Your task to perform on an android device: turn on priority inbox in the gmail app Image 0: 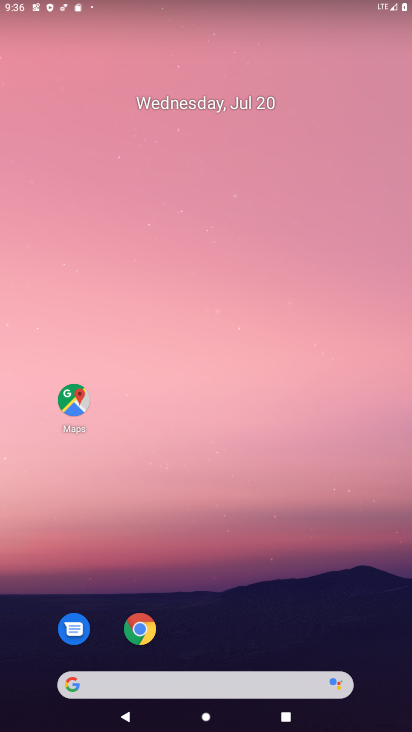
Step 0: press home button
Your task to perform on an android device: turn on priority inbox in the gmail app Image 1: 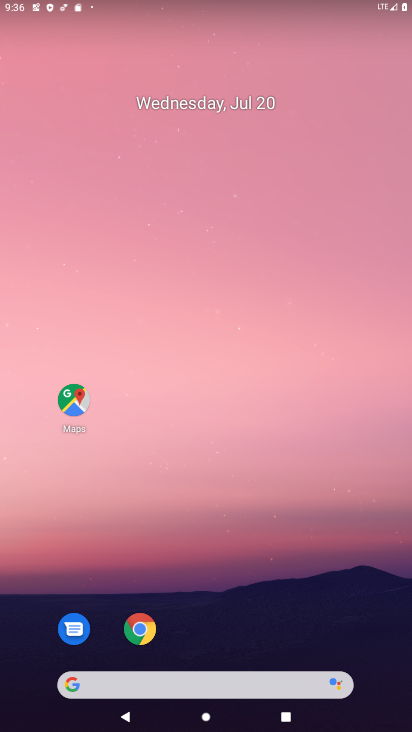
Step 1: drag from (348, 641) to (338, 494)
Your task to perform on an android device: turn on priority inbox in the gmail app Image 2: 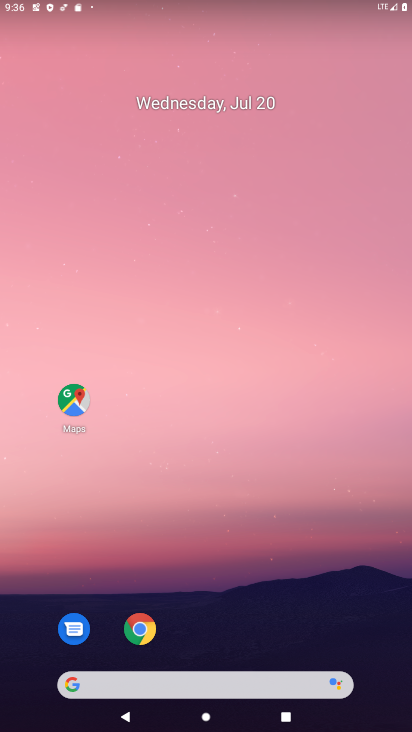
Step 2: drag from (310, 638) to (325, 81)
Your task to perform on an android device: turn on priority inbox in the gmail app Image 3: 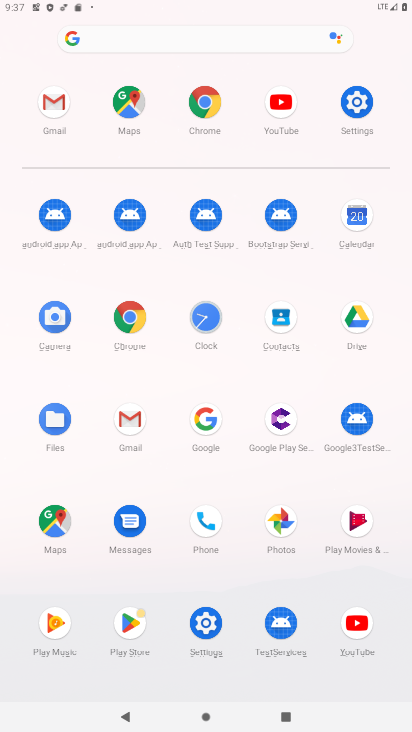
Step 3: click (121, 427)
Your task to perform on an android device: turn on priority inbox in the gmail app Image 4: 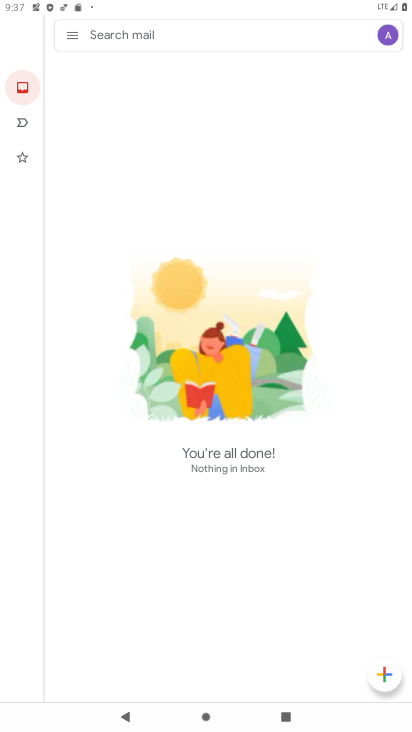
Step 4: click (74, 31)
Your task to perform on an android device: turn on priority inbox in the gmail app Image 5: 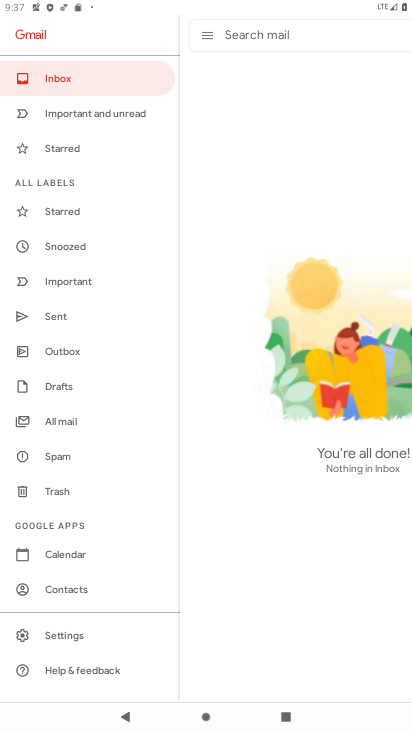
Step 5: click (70, 639)
Your task to perform on an android device: turn on priority inbox in the gmail app Image 6: 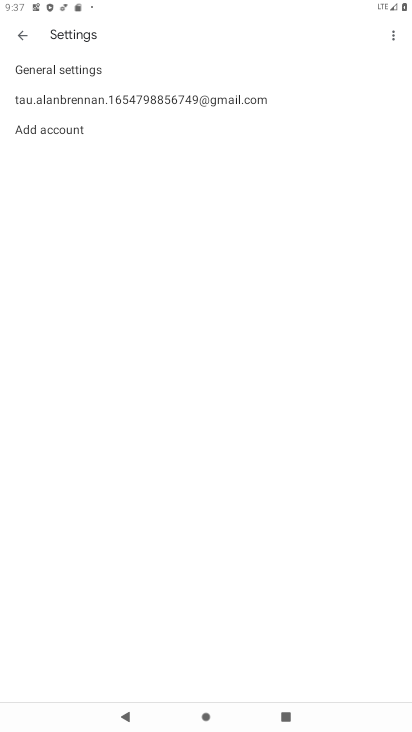
Step 6: click (60, 101)
Your task to perform on an android device: turn on priority inbox in the gmail app Image 7: 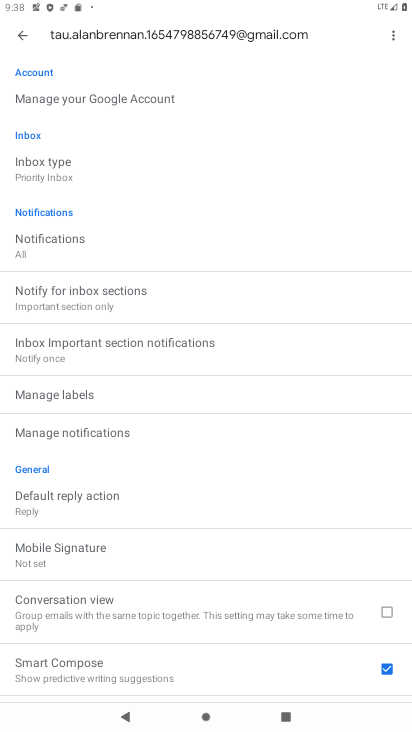
Step 7: click (43, 159)
Your task to perform on an android device: turn on priority inbox in the gmail app Image 8: 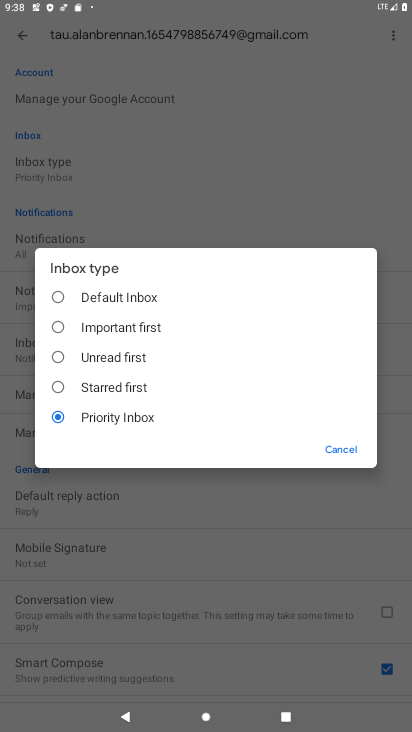
Step 8: click (92, 410)
Your task to perform on an android device: turn on priority inbox in the gmail app Image 9: 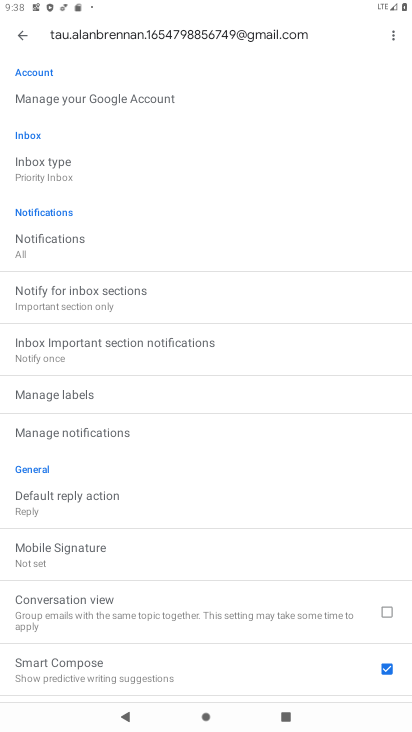
Step 9: task complete